Your task to perform on an android device: turn pop-ups on in chrome Image 0: 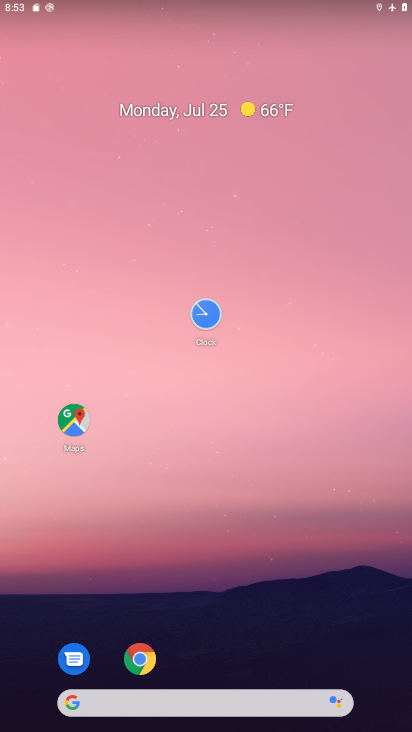
Step 0: drag from (213, 642) to (167, 302)
Your task to perform on an android device: turn pop-ups on in chrome Image 1: 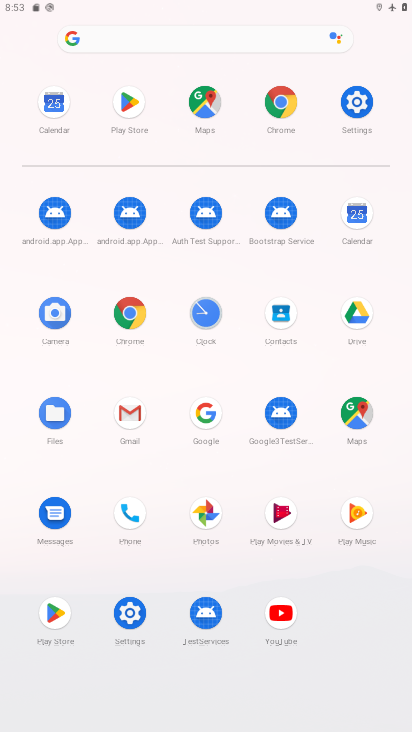
Step 1: click (288, 98)
Your task to perform on an android device: turn pop-ups on in chrome Image 2: 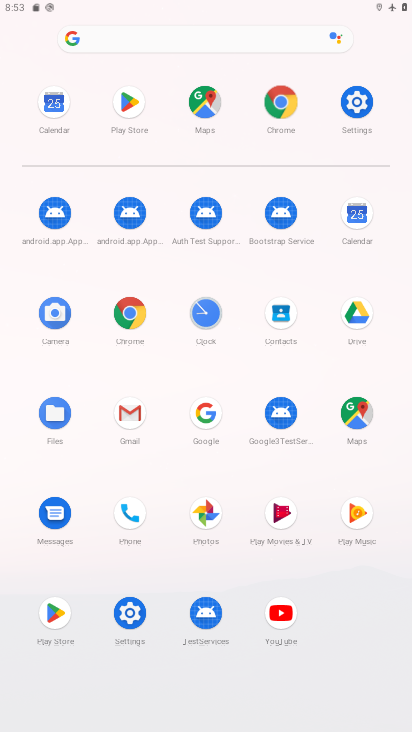
Step 2: click (285, 104)
Your task to perform on an android device: turn pop-ups on in chrome Image 3: 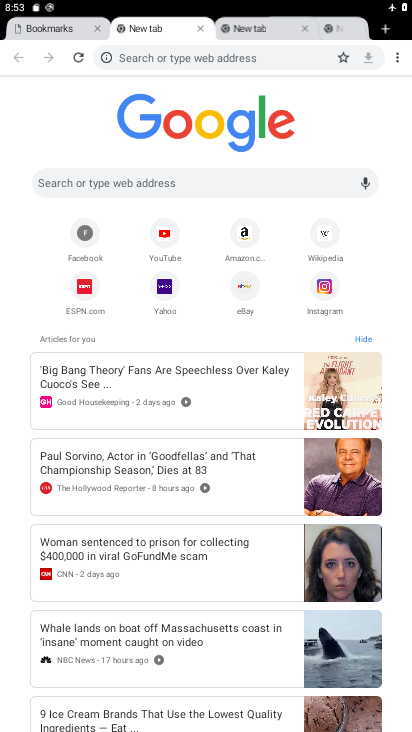
Step 3: drag from (389, 54) to (262, 281)
Your task to perform on an android device: turn pop-ups on in chrome Image 4: 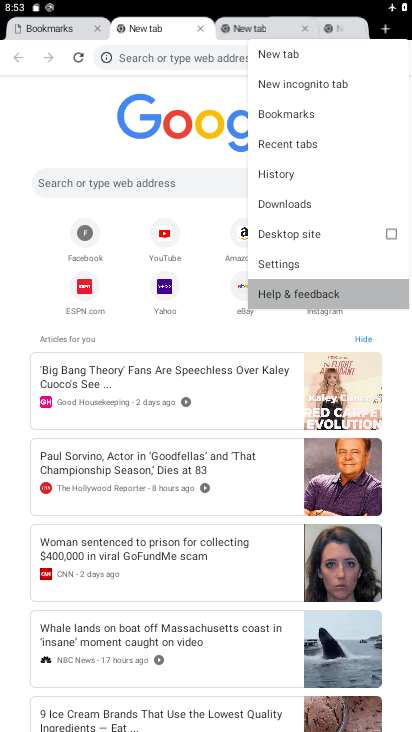
Step 4: click (259, 280)
Your task to perform on an android device: turn pop-ups on in chrome Image 5: 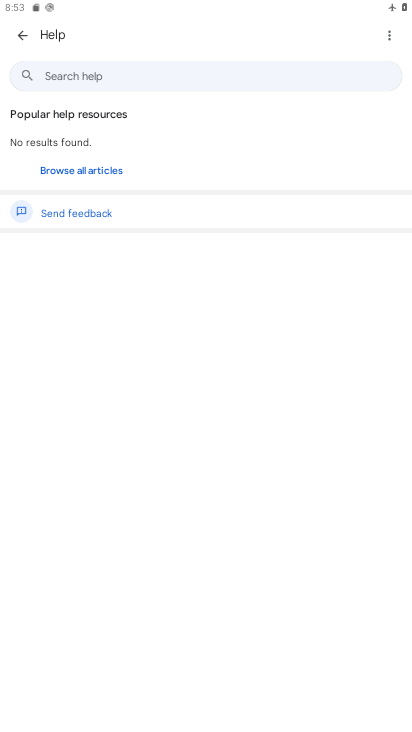
Step 5: click (16, 31)
Your task to perform on an android device: turn pop-ups on in chrome Image 6: 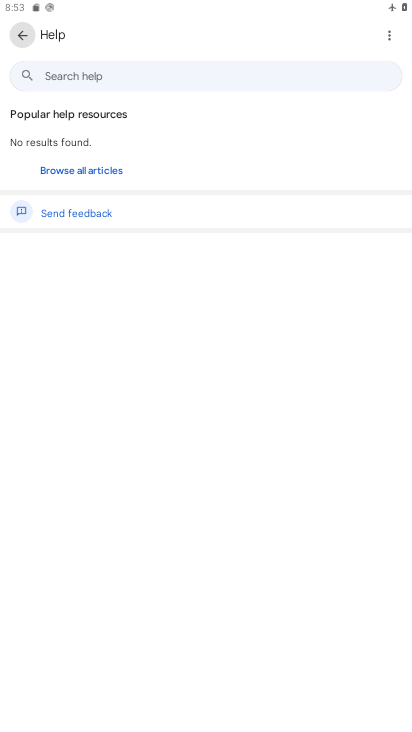
Step 6: click (16, 31)
Your task to perform on an android device: turn pop-ups on in chrome Image 7: 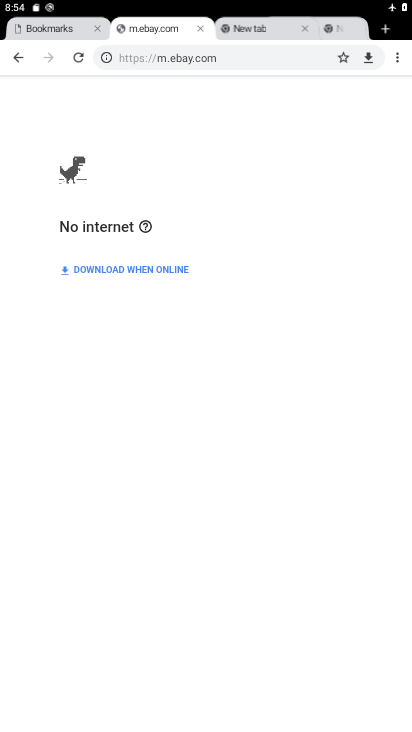
Step 7: drag from (394, 59) to (270, 353)
Your task to perform on an android device: turn pop-ups on in chrome Image 8: 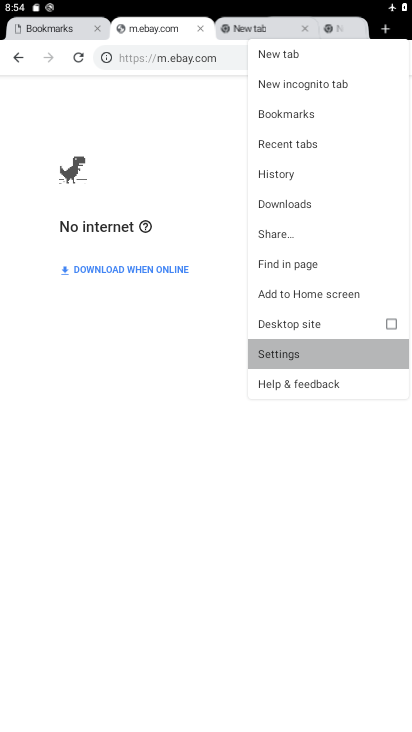
Step 8: click (270, 355)
Your task to perform on an android device: turn pop-ups on in chrome Image 9: 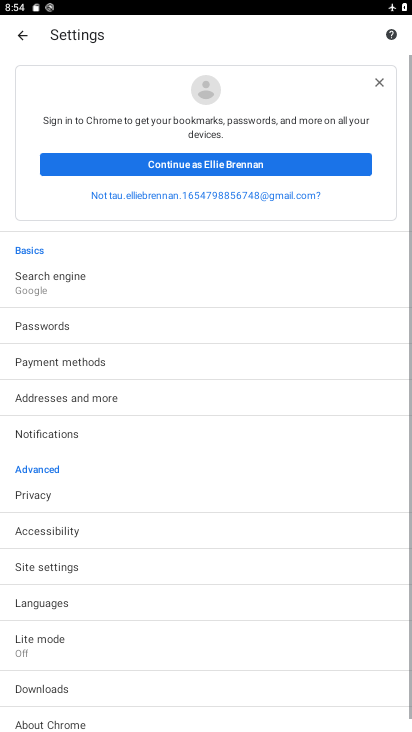
Step 9: drag from (168, 602) to (158, 358)
Your task to perform on an android device: turn pop-ups on in chrome Image 10: 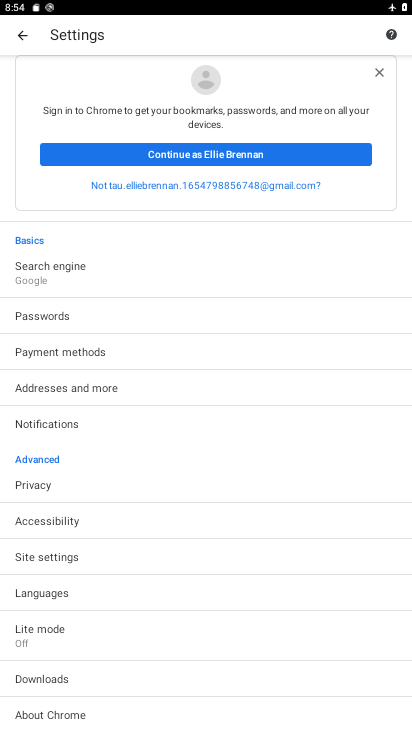
Step 10: click (39, 548)
Your task to perform on an android device: turn pop-ups on in chrome Image 11: 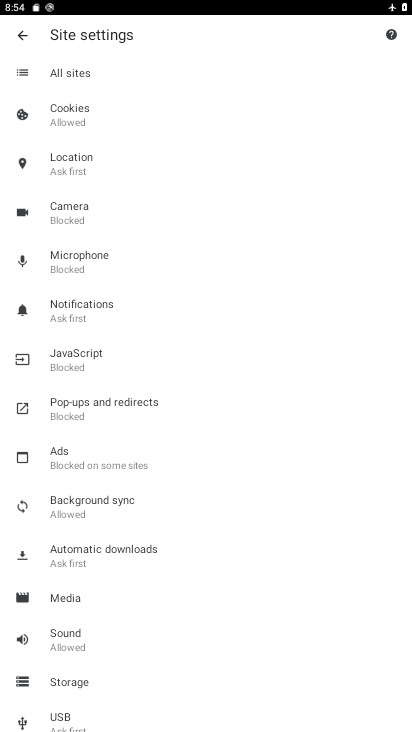
Step 11: click (53, 414)
Your task to perform on an android device: turn pop-ups on in chrome Image 12: 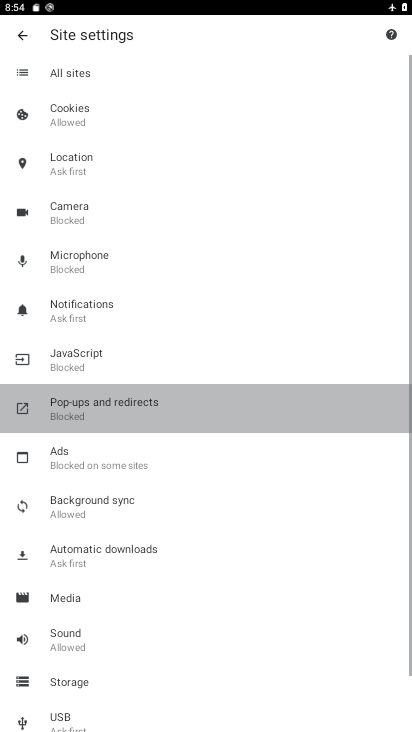
Step 12: click (60, 410)
Your task to perform on an android device: turn pop-ups on in chrome Image 13: 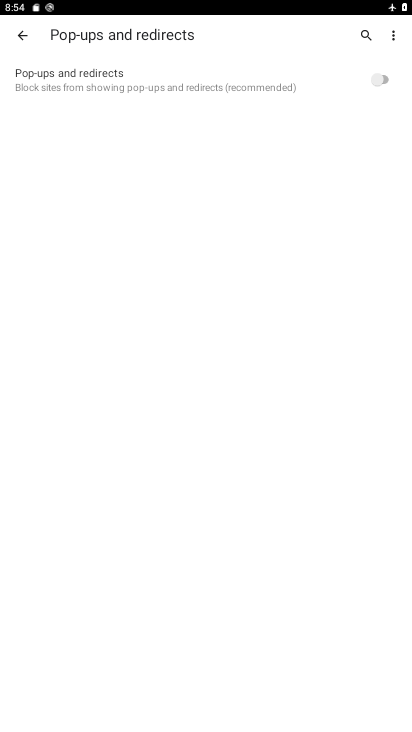
Step 13: click (379, 76)
Your task to perform on an android device: turn pop-ups on in chrome Image 14: 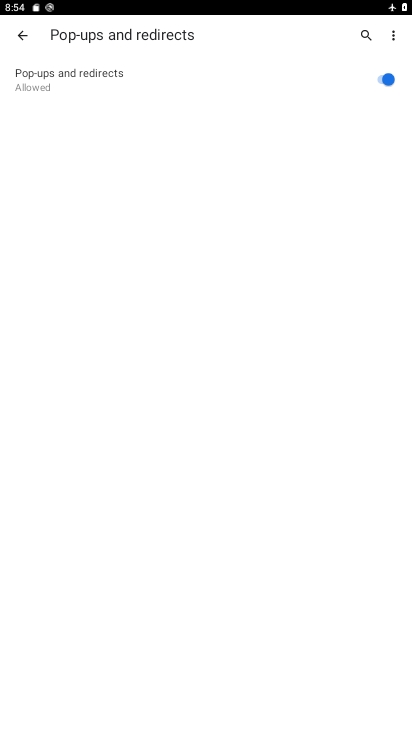
Step 14: task complete